Your task to perform on an android device: Go to settings Image 0: 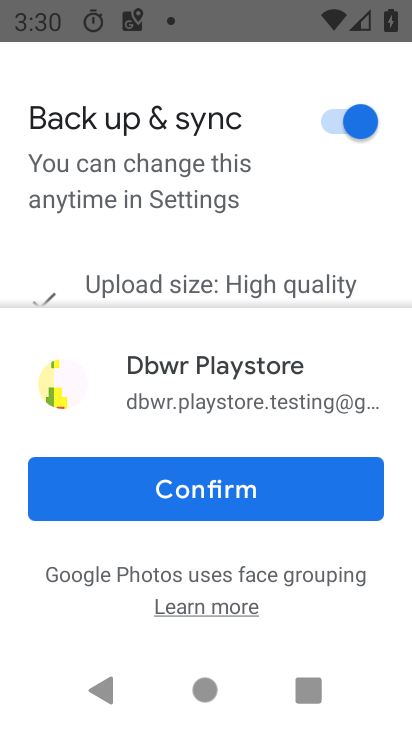
Step 0: press home button
Your task to perform on an android device: Go to settings Image 1: 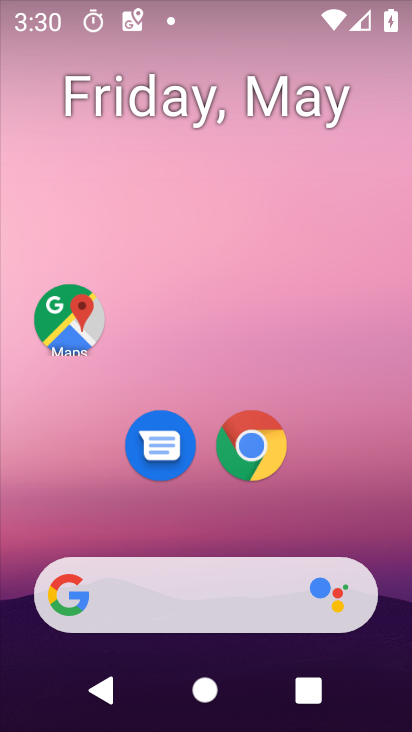
Step 1: drag from (249, 609) to (259, 3)
Your task to perform on an android device: Go to settings Image 2: 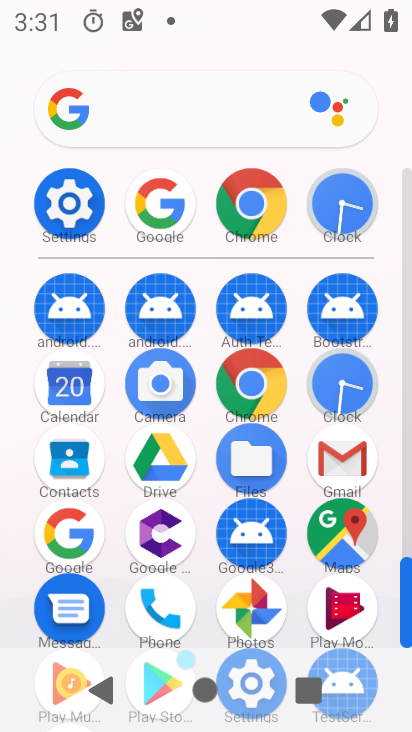
Step 2: drag from (189, 434) to (265, 129)
Your task to perform on an android device: Go to settings Image 3: 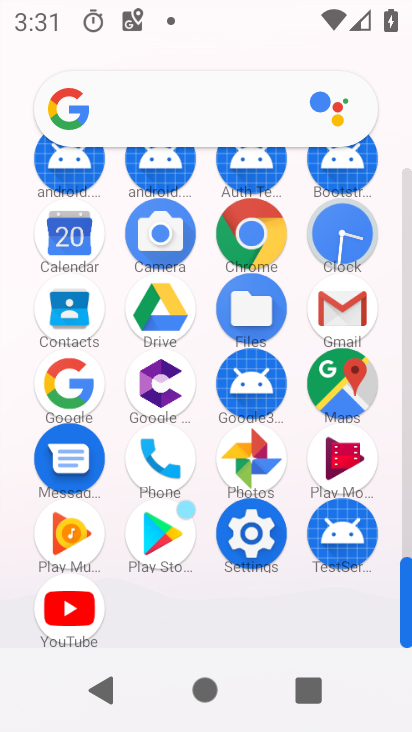
Step 3: click (258, 550)
Your task to perform on an android device: Go to settings Image 4: 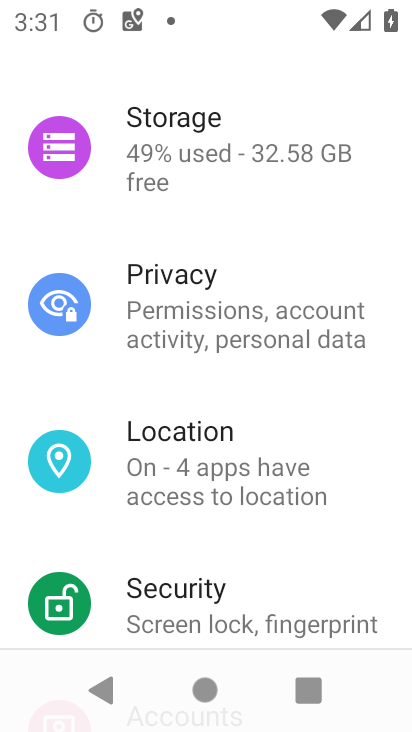
Step 4: task complete